Your task to perform on an android device: Search for a new eyeliner Image 0: 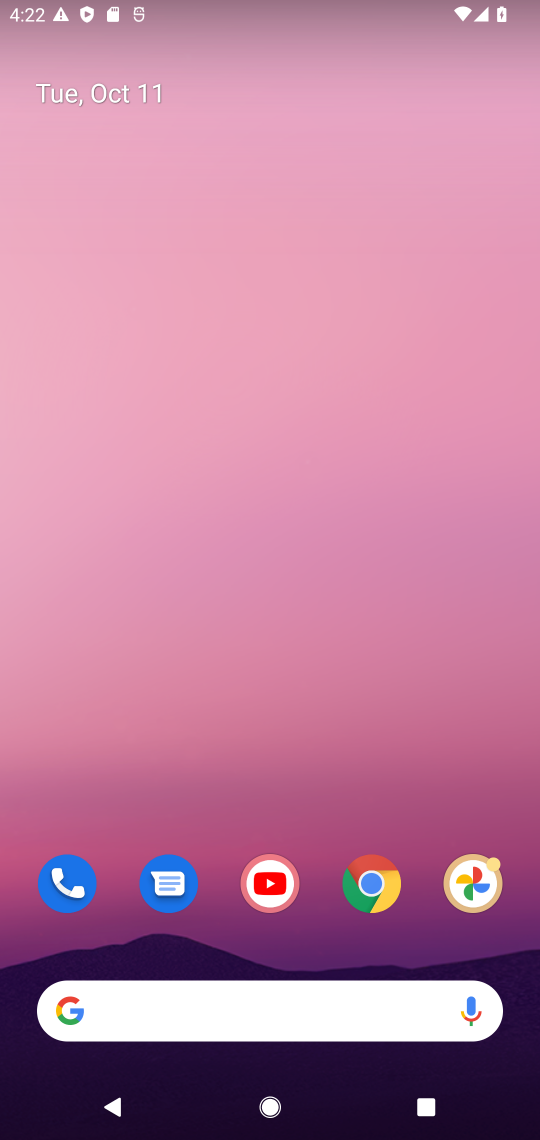
Step 0: drag from (319, 925) to (224, 289)
Your task to perform on an android device: Search for a new eyeliner Image 1: 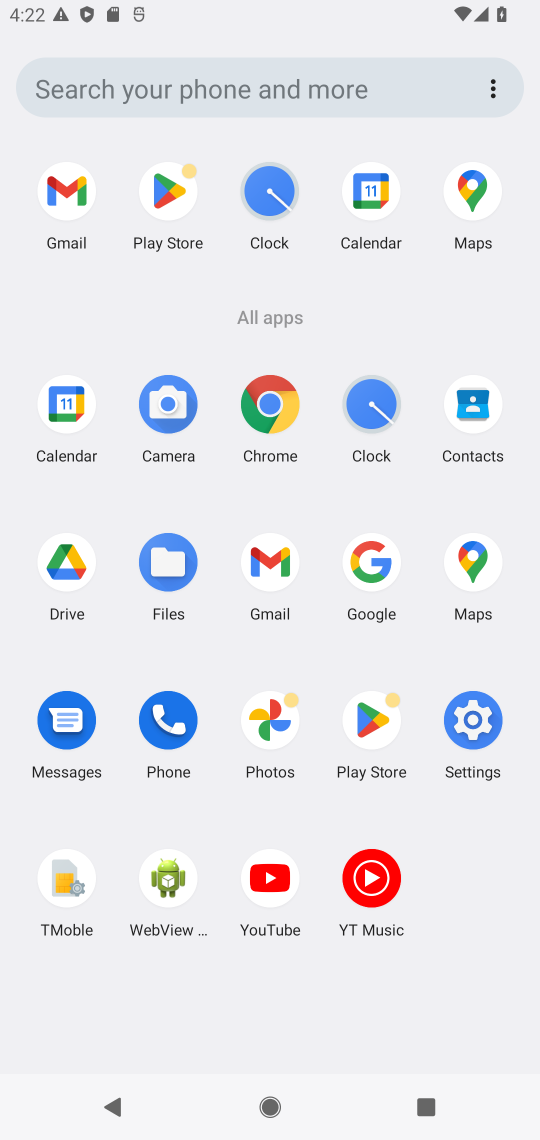
Step 1: click (267, 409)
Your task to perform on an android device: Search for a new eyeliner Image 2: 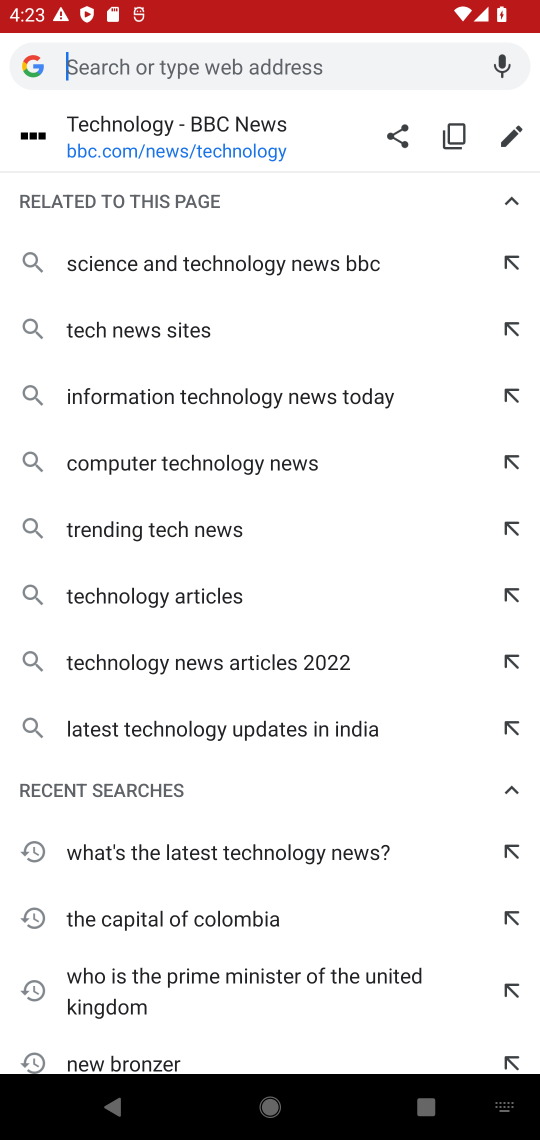
Step 2: type "a new eyeliner"
Your task to perform on an android device: Search for a new eyeliner Image 3: 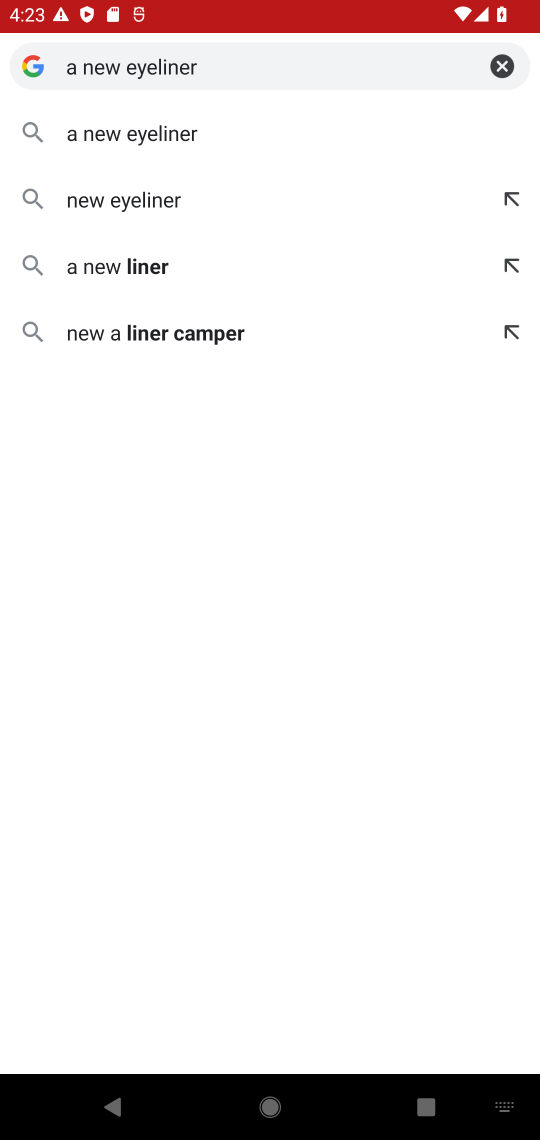
Step 3: press enter
Your task to perform on an android device: Search for a new eyeliner Image 4: 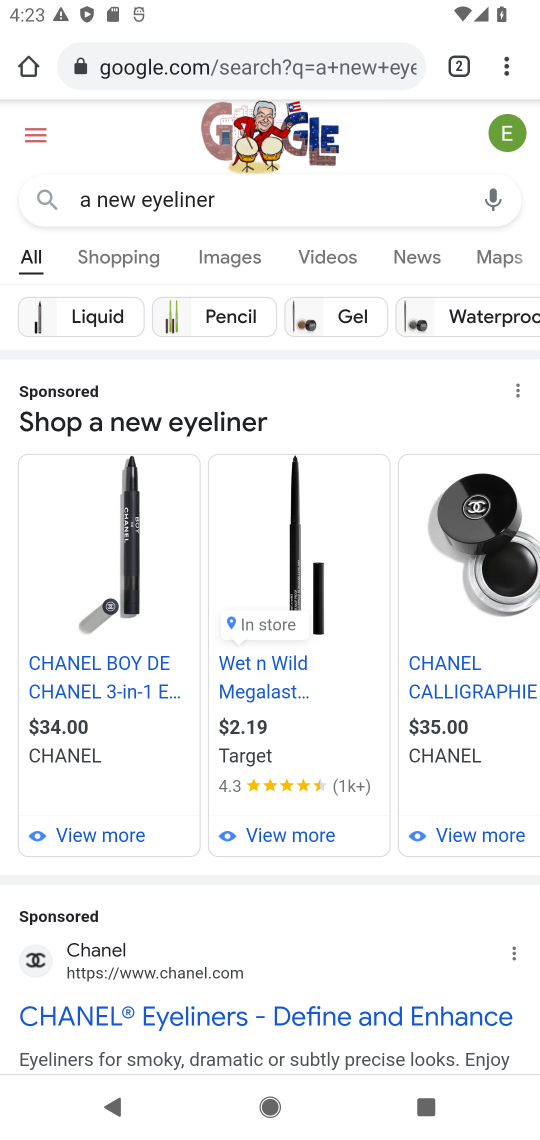
Step 4: task complete